Your task to perform on an android device: What's the weather going to be tomorrow? Image 0: 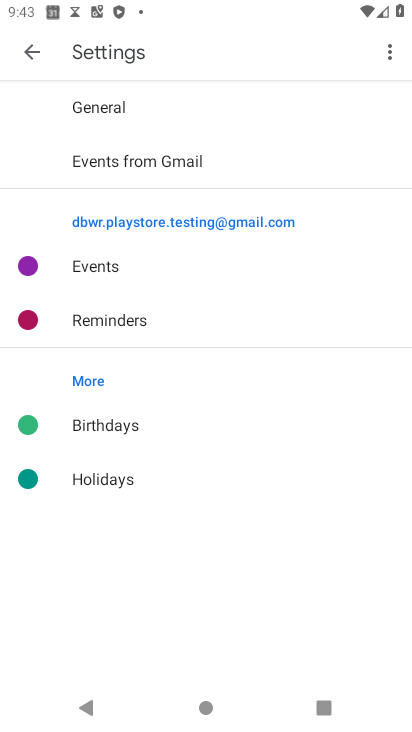
Step 0: press home button
Your task to perform on an android device: What's the weather going to be tomorrow? Image 1: 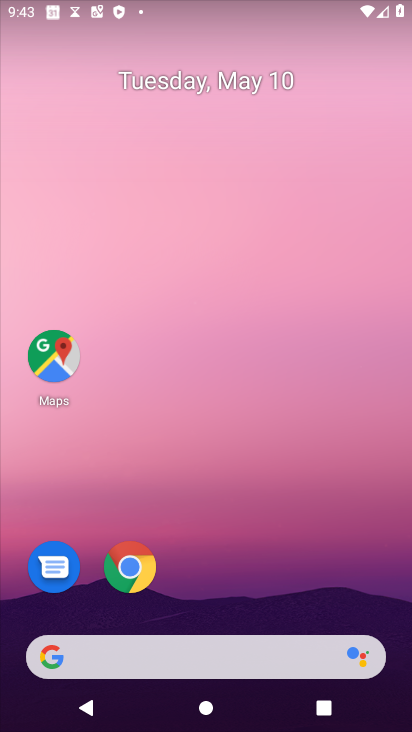
Step 1: click (145, 656)
Your task to perform on an android device: What's the weather going to be tomorrow? Image 2: 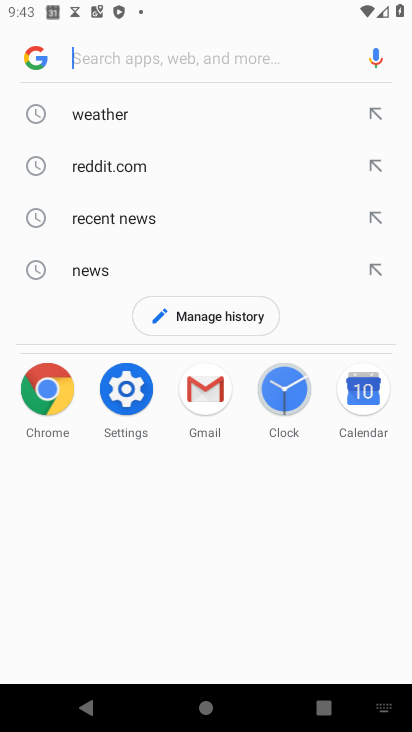
Step 2: click (112, 127)
Your task to perform on an android device: What's the weather going to be tomorrow? Image 3: 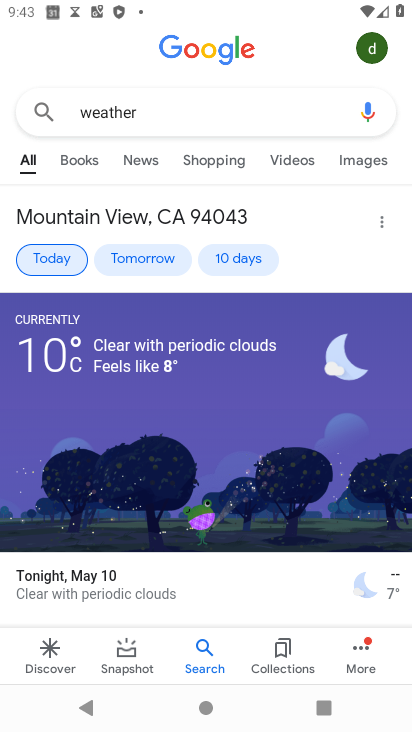
Step 3: task complete